Your task to perform on an android device: Open sound settings Image 0: 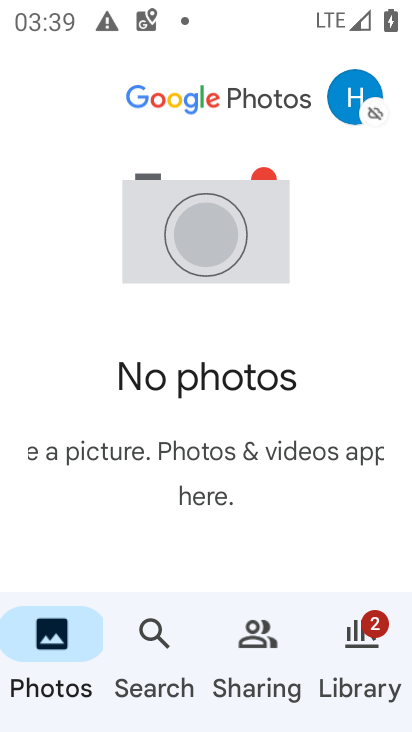
Step 0: press home button
Your task to perform on an android device: Open sound settings Image 1: 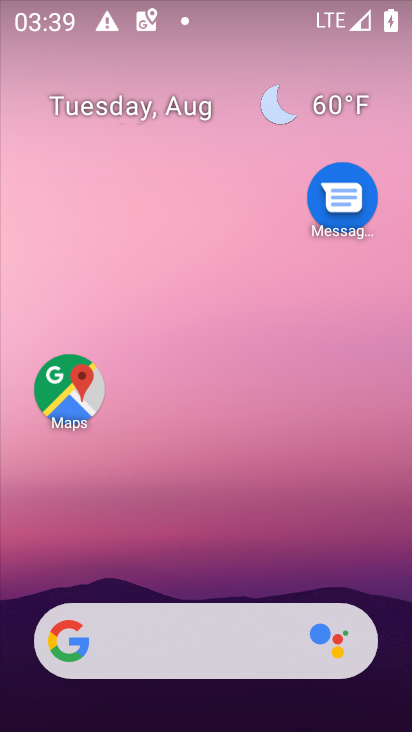
Step 1: drag from (215, 593) to (207, 0)
Your task to perform on an android device: Open sound settings Image 2: 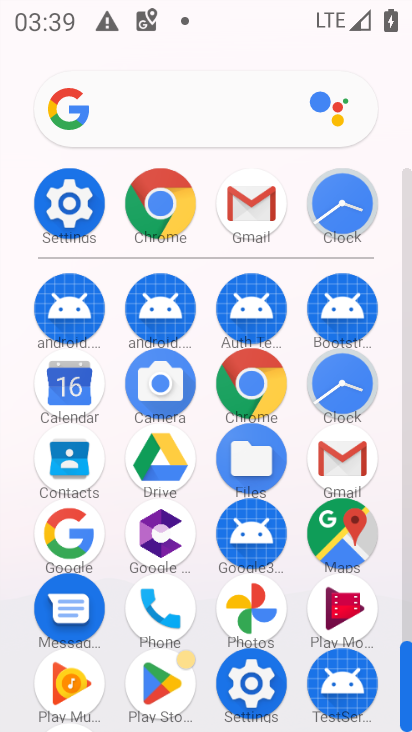
Step 2: click (75, 237)
Your task to perform on an android device: Open sound settings Image 3: 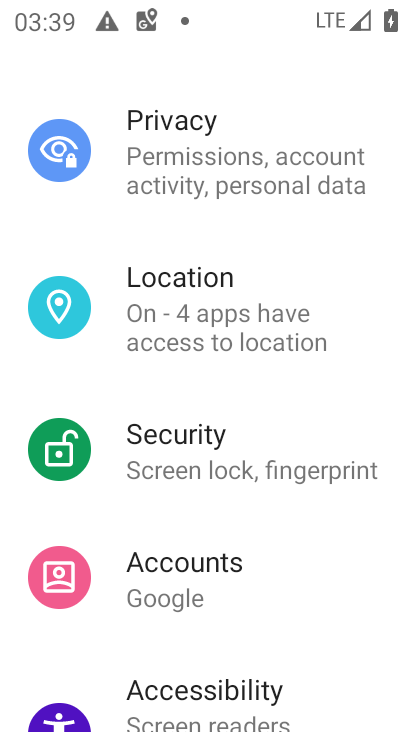
Step 3: drag from (268, 206) to (255, 727)
Your task to perform on an android device: Open sound settings Image 4: 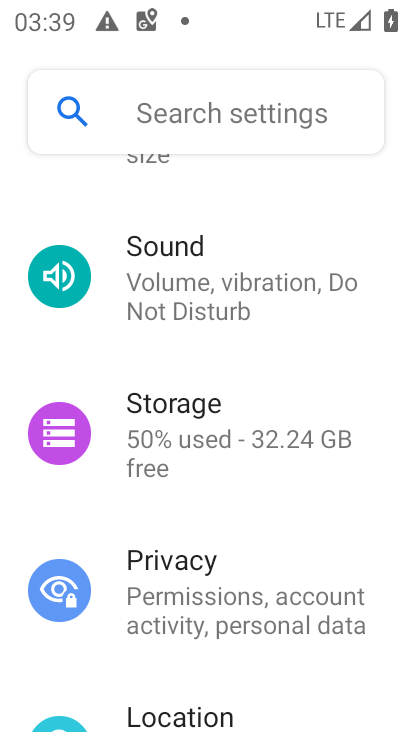
Step 4: click (225, 323)
Your task to perform on an android device: Open sound settings Image 5: 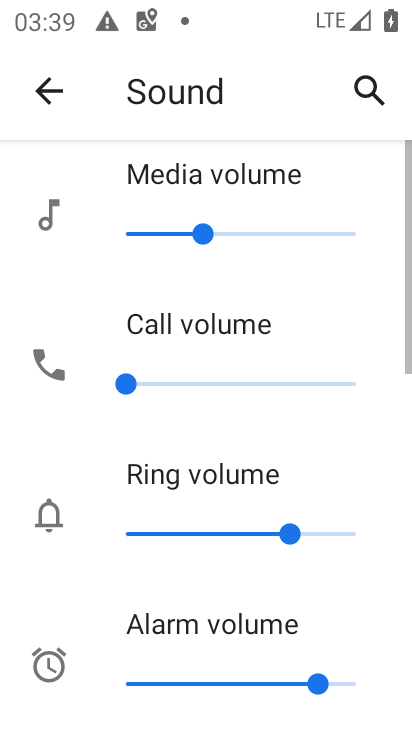
Step 5: task complete